Your task to perform on an android device: clear all cookies in the chrome app Image 0: 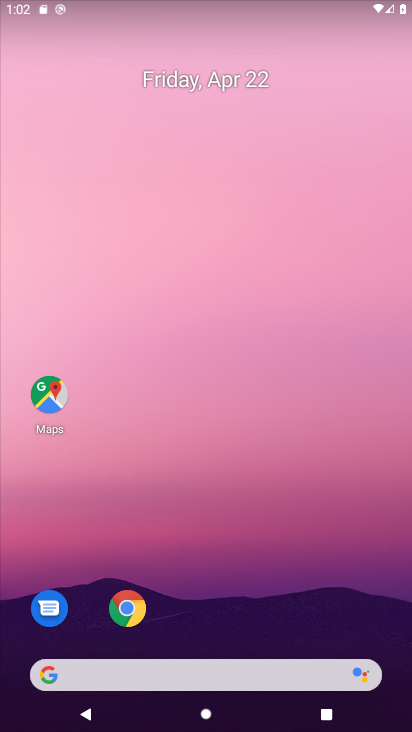
Step 0: click (117, 606)
Your task to perform on an android device: clear all cookies in the chrome app Image 1: 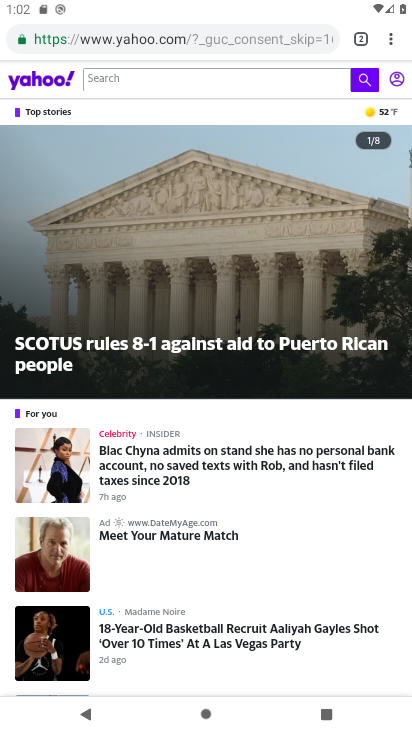
Step 1: drag from (391, 40) to (287, 499)
Your task to perform on an android device: clear all cookies in the chrome app Image 2: 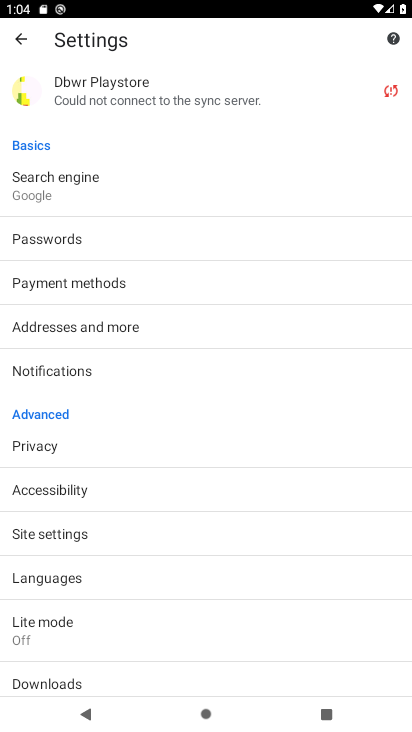
Step 2: click (93, 540)
Your task to perform on an android device: clear all cookies in the chrome app Image 3: 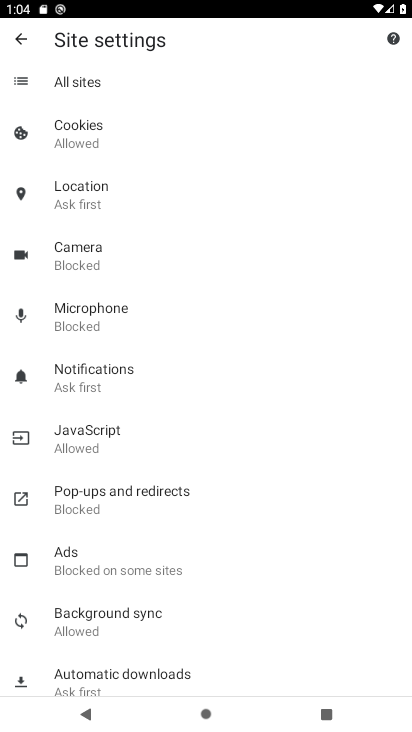
Step 3: click (17, 38)
Your task to perform on an android device: clear all cookies in the chrome app Image 4: 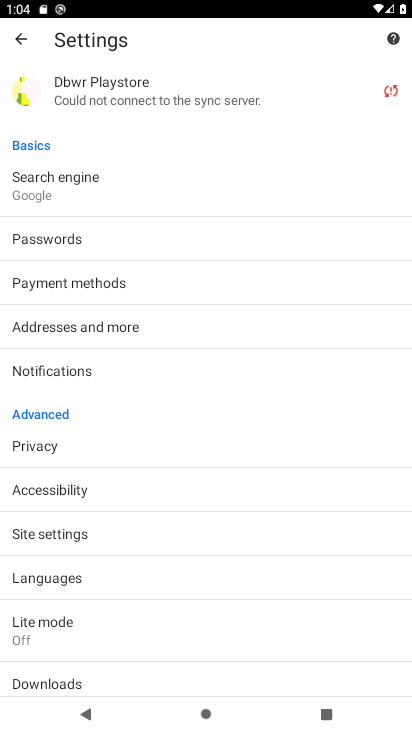
Step 4: click (79, 446)
Your task to perform on an android device: clear all cookies in the chrome app Image 5: 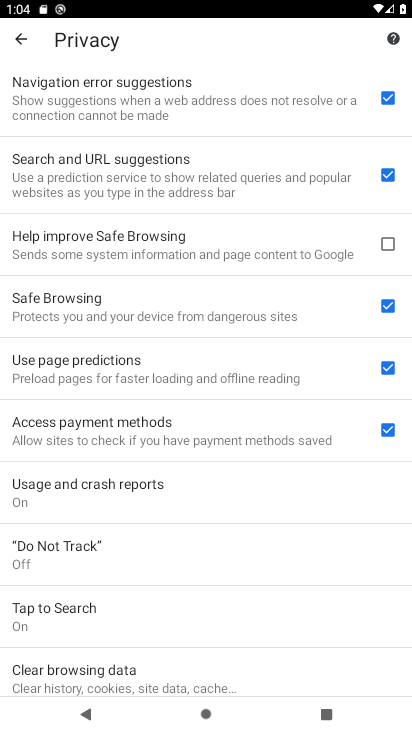
Step 5: drag from (234, 630) to (232, 392)
Your task to perform on an android device: clear all cookies in the chrome app Image 6: 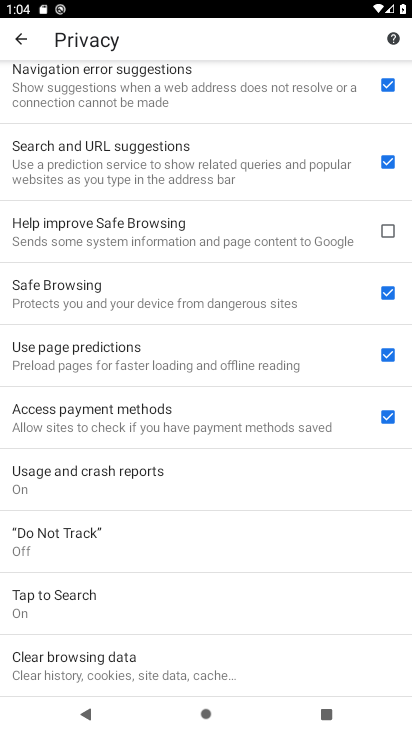
Step 6: click (131, 663)
Your task to perform on an android device: clear all cookies in the chrome app Image 7: 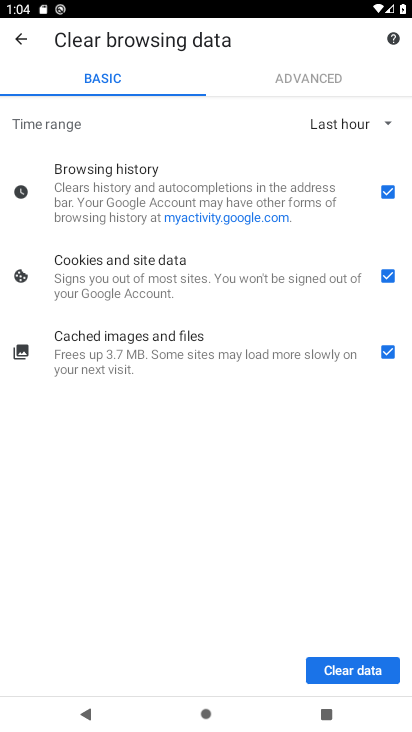
Step 7: click (341, 673)
Your task to perform on an android device: clear all cookies in the chrome app Image 8: 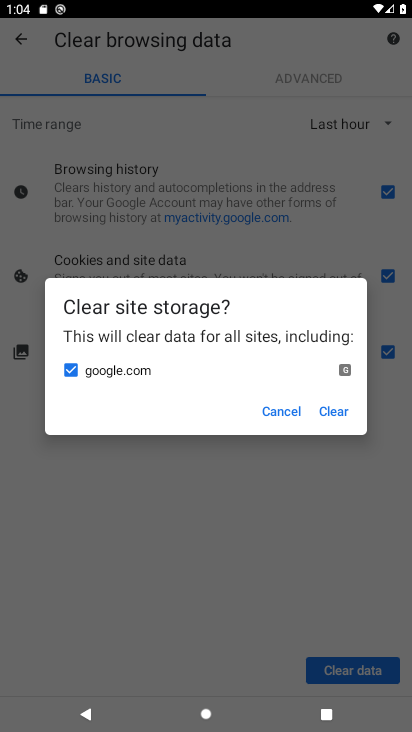
Step 8: click (326, 405)
Your task to perform on an android device: clear all cookies in the chrome app Image 9: 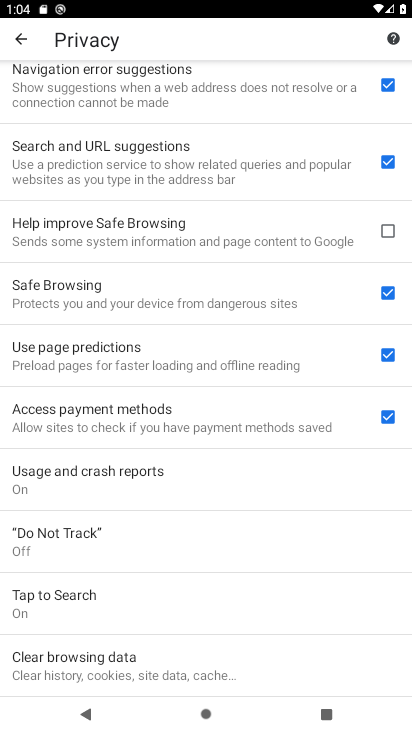
Step 9: task complete